Your task to perform on an android device: Open wifi settings Image 0: 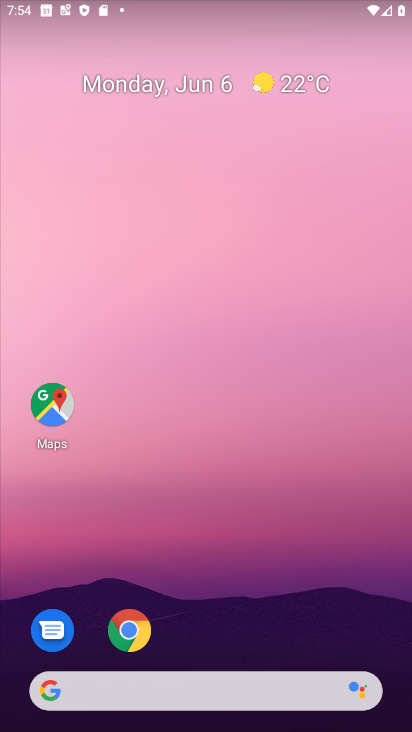
Step 0: drag from (141, 637) to (121, 257)
Your task to perform on an android device: Open wifi settings Image 1: 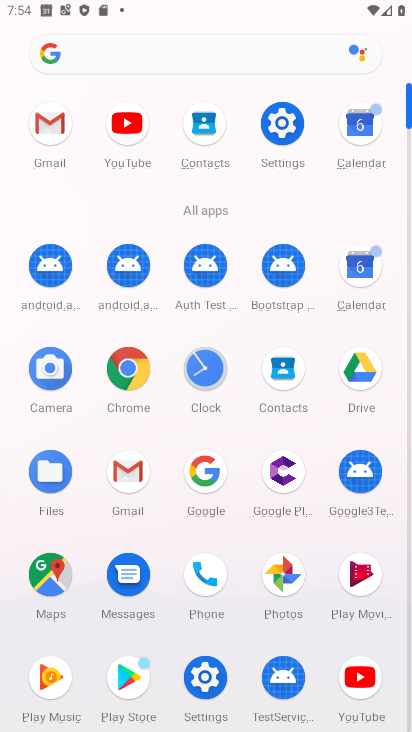
Step 1: click (293, 108)
Your task to perform on an android device: Open wifi settings Image 2: 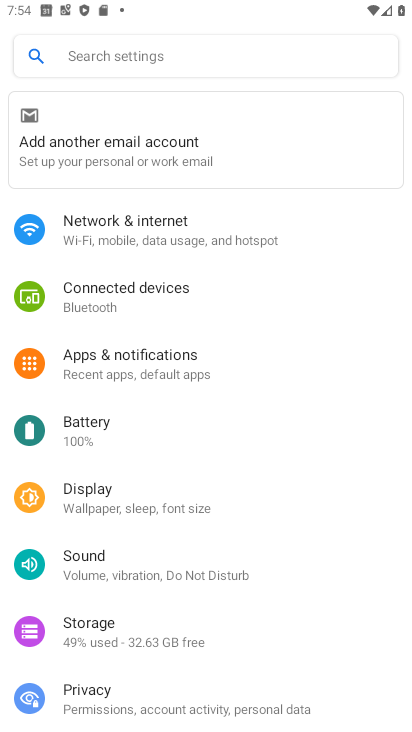
Step 2: click (164, 235)
Your task to perform on an android device: Open wifi settings Image 3: 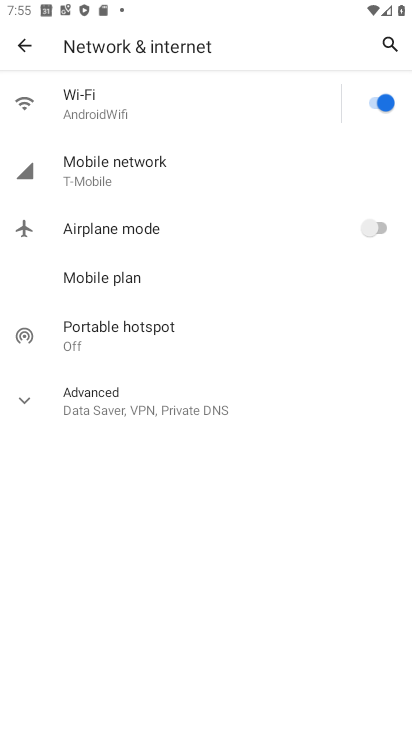
Step 3: click (151, 102)
Your task to perform on an android device: Open wifi settings Image 4: 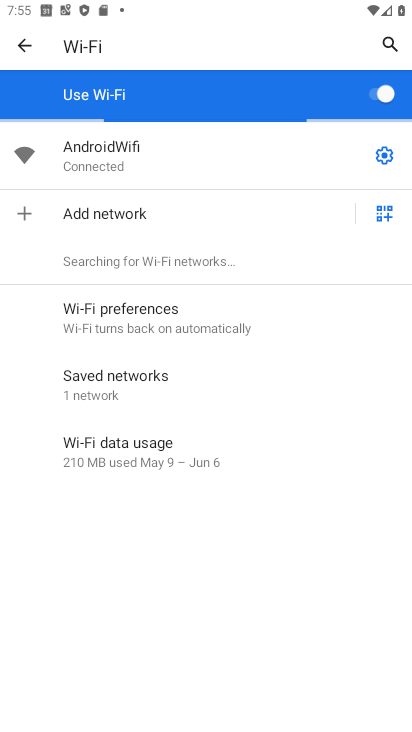
Step 4: task complete